Your task to perform on an android device: Check the weather Image 0: 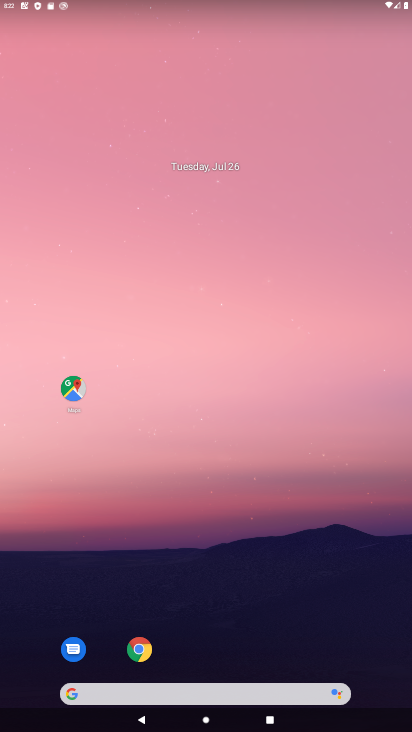
Step 0: click (149, 699)
Your task to perform on an android device: Check the weather Image 1: 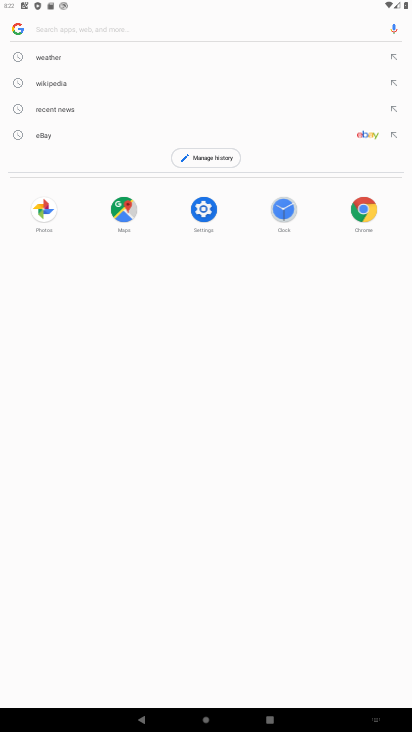
Step 1: click (110, 61)
Your task to perform on an android device: Check the weather Image 2: 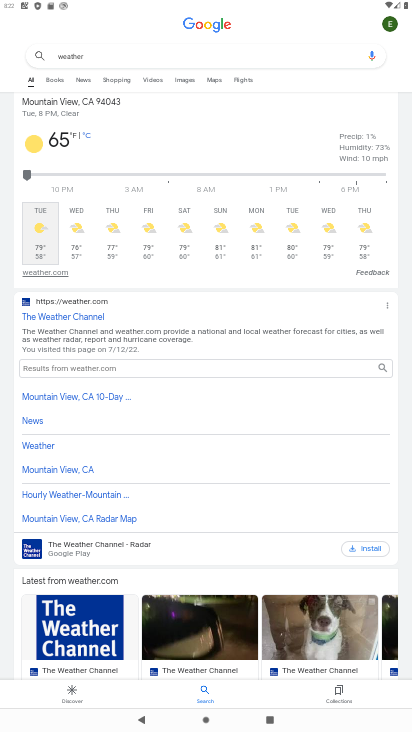
Step 2: task complete